Your task to perform on an android device: turn on the 24-hour format for clock Image 0: 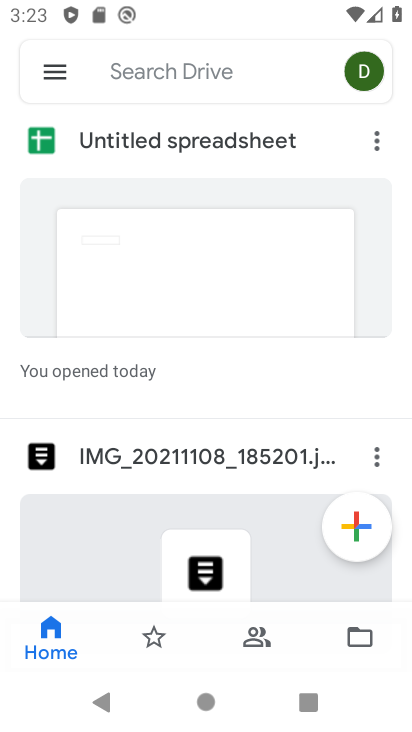
Step 0: press home button
Your task to perform on an android device: turn on the 24-hour format for clock Image 1: 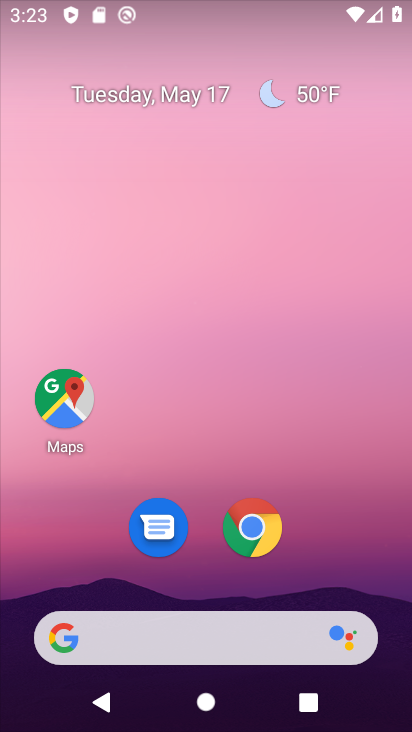
Step 1: drag from (186, 603) to (260, 160)
Your task to perform on an android device: turn on the 24-hour format for clock Image 2: 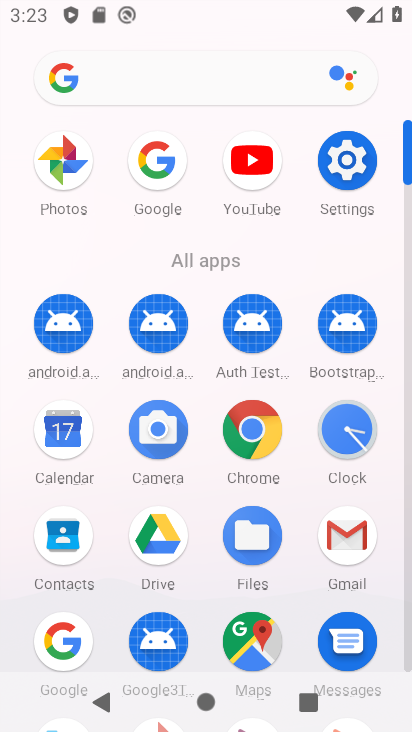
Step 2: click (347, 460)
Your task to perform on an android device: turn on the 24-hour format for clock Image 3: 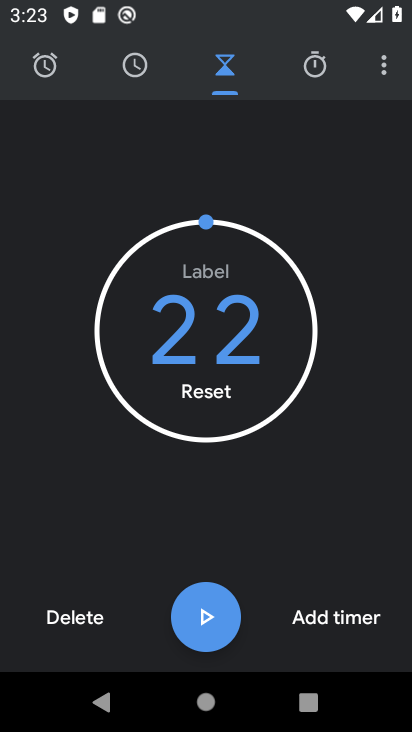
Step 3: click (393, 68)
Your task to perform on an android device: turn on the 24-hour format for clock Image 4: 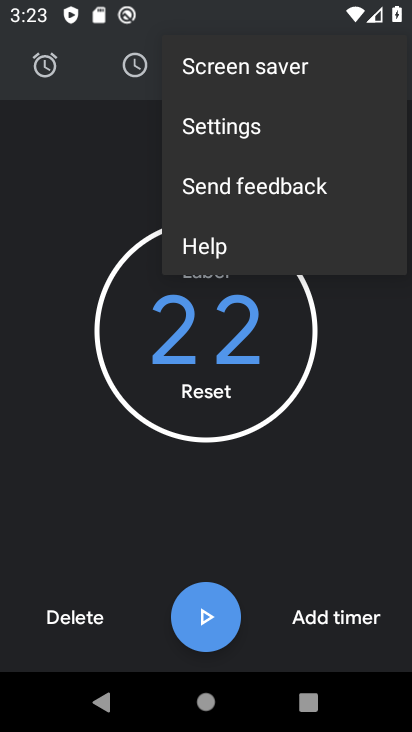
Step 4: click (370, 133)
Your task to perform on an android device: turn on the 24-hour format for clock Image 5: 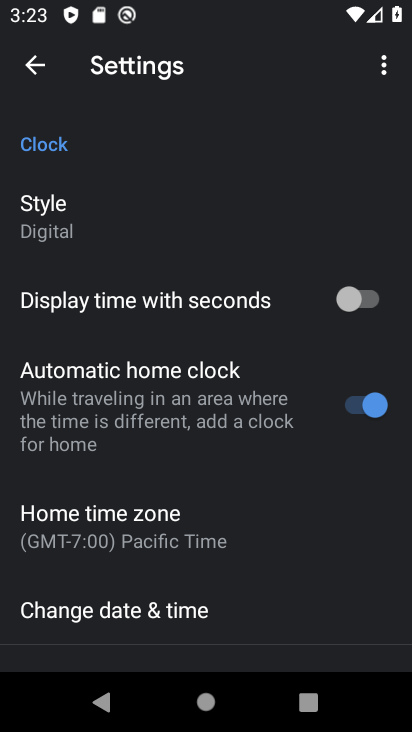
Step 5: click (248, 609)
Your task to perform on an android device: turn on the 24-hour format for clock Image 6: 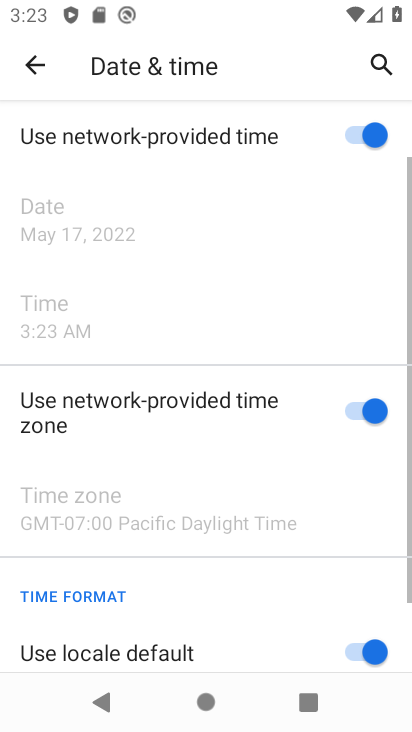
Step 6: drag from (224, 597) to (299, 235)
Your task to perform on an android device: turn on the 24-hour format for clock Image 7: 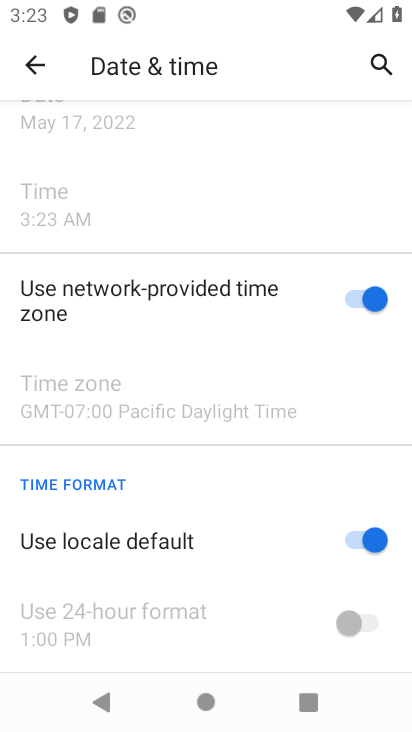
Step 7: click (360, 552)
Your task to perform on an android device: turn on the 24-hour format for clock Image 8: 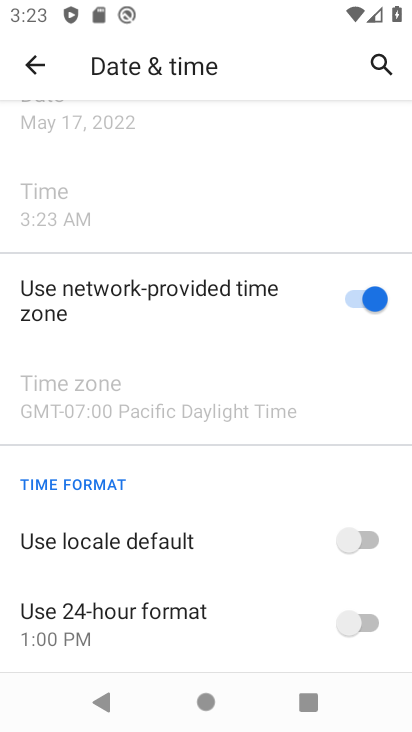
Step 8: click (383, 617)
Your task to perform on an android device: turn on the 24-hour format for clock Image 9: 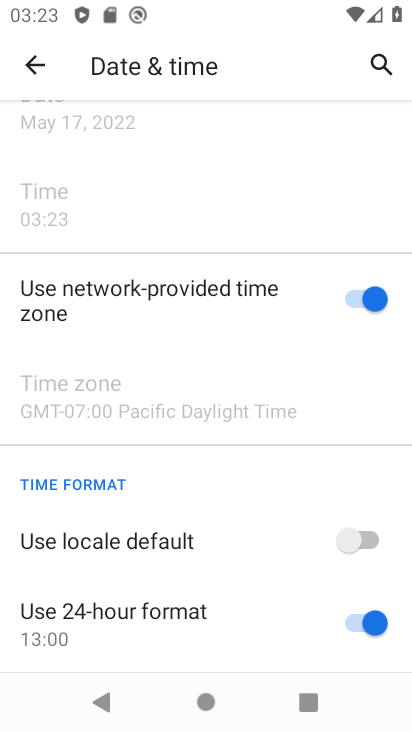
Step 9: task complete